Your task to perform on an android device: Clear the shopping cart on amazon. Search for jbl flip 4 on amazon, select the first entry, and add it to the cart. Image 0: 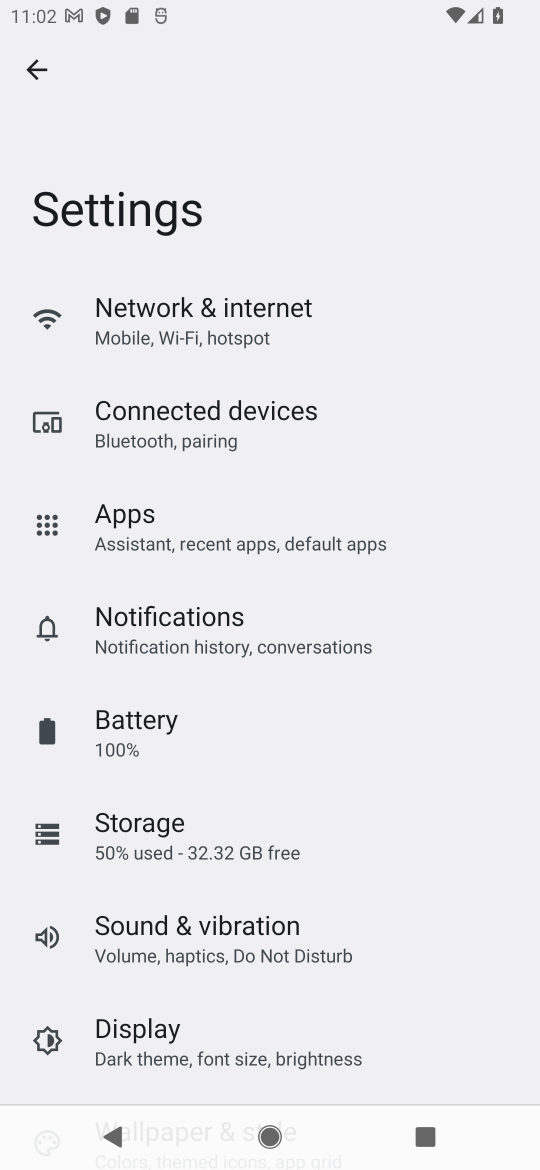
Step 0: press home button
Your task to perform on an android device: Clear the shopping cart on amazon. Search for jbl flip 4 on amazon, select the first entry, and add it to the cart. Image 1: 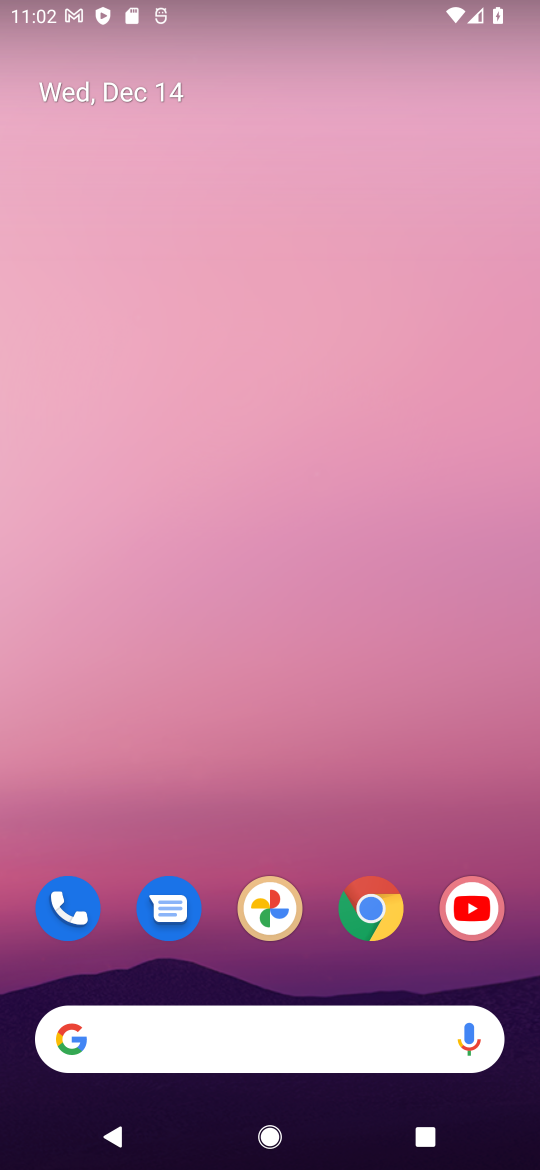
Step 1: click (369, 915)
Your task to perform on an android device: Clear the shopping cart on amazon. Search for jbl flip 4 on amazon, select the first entry, and add it to the cart. Image 2: 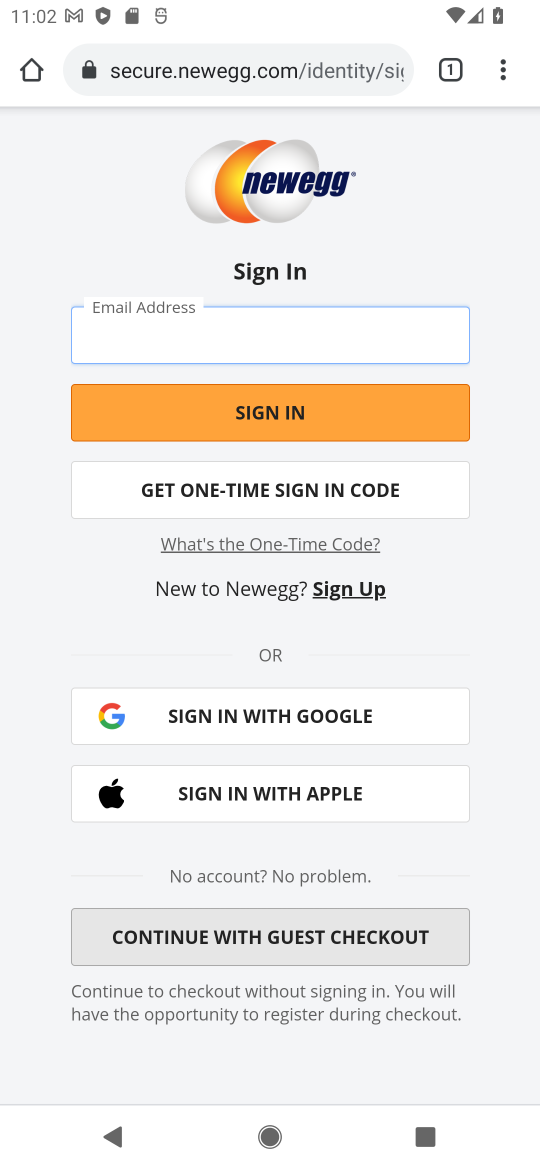
Step 2: click (187, 68)
Your task to perform on an android device: Clear the shopping cart on amazon. Search for jbl flip 4 on amazon, select the first entry, and add it to the cart. Image 3: 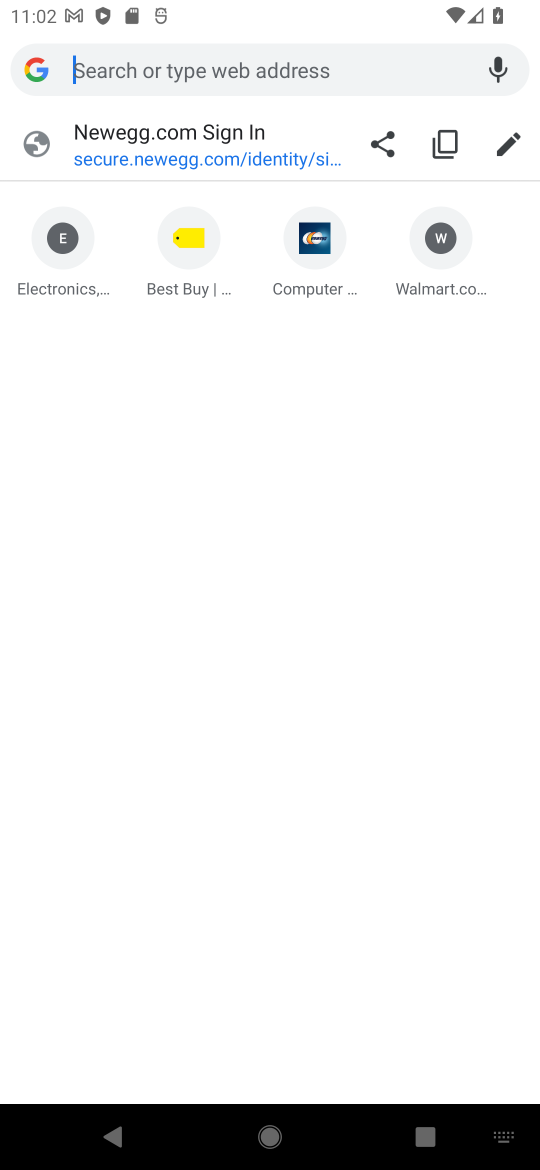
Step 3: type "amazon.com"
Your task to perform on an android device: Clear the shopping cart on amazon. Search for jbl flip 4 on amazon, select the first entry, and add it to the cart. Image 4: 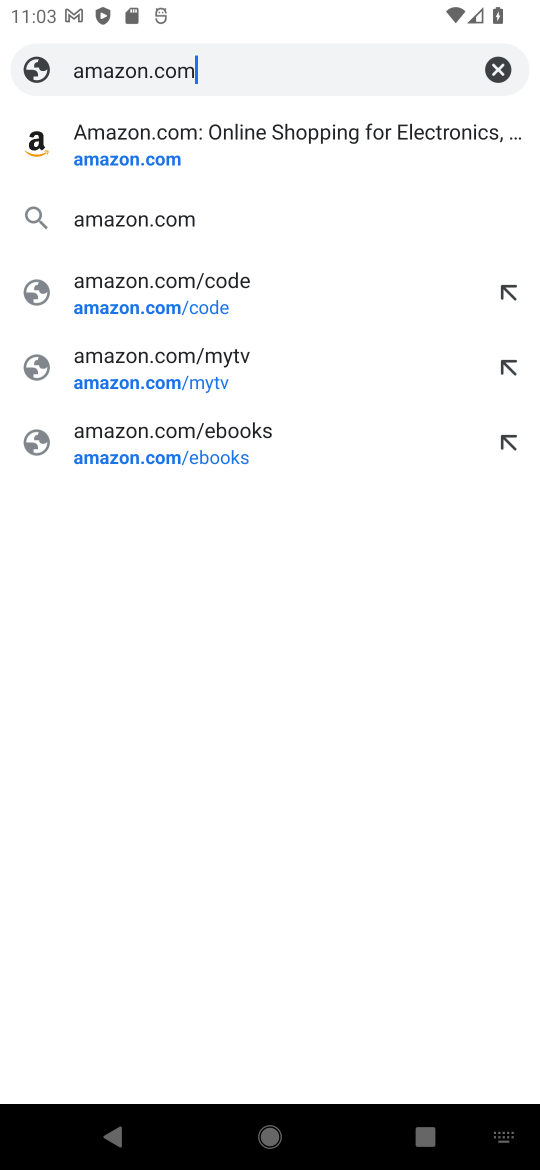
Step 4: click (115, 168)
Your task to perform on an android device: Clear the shopping cart on amazon. Search for jbl flip 4 on amazon, select the first entry, and add it to the cart. Image 5: 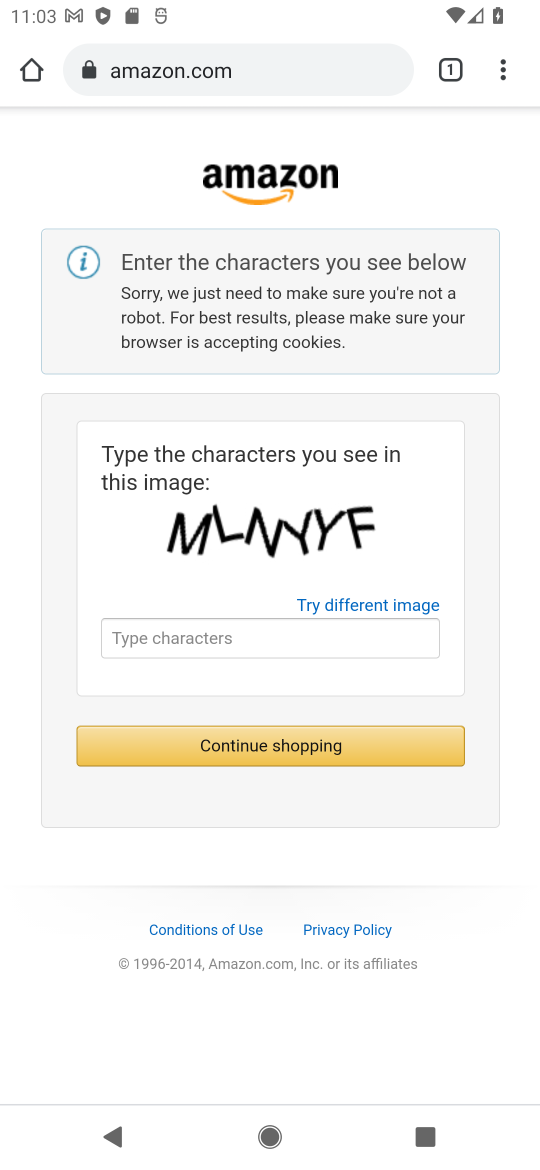
Step 5: click (126, 640)
Your task to perform on an android device: Clear the shopping cart on amazon. Search for jbl flip 4 on amazon, select the first entry, and add it to the cart. Image 6: 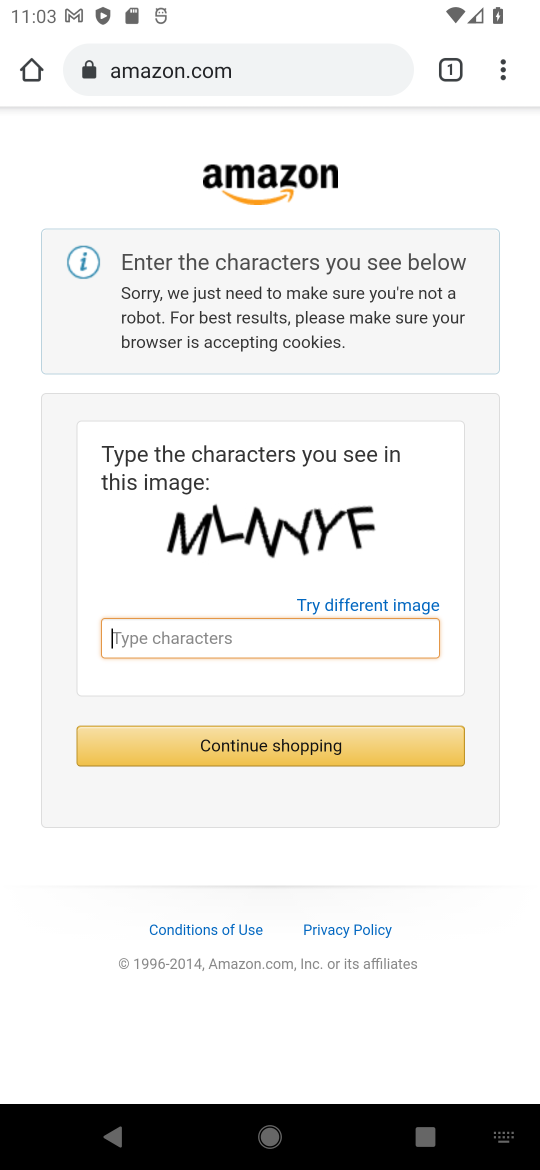
Step 6: type "MLNYYF"
Your task to perform on an android device: Clear the shopping cart on amazon. Search for jbl flip 4 on amazon, select the first entry, and add it to the cart. Image 7: 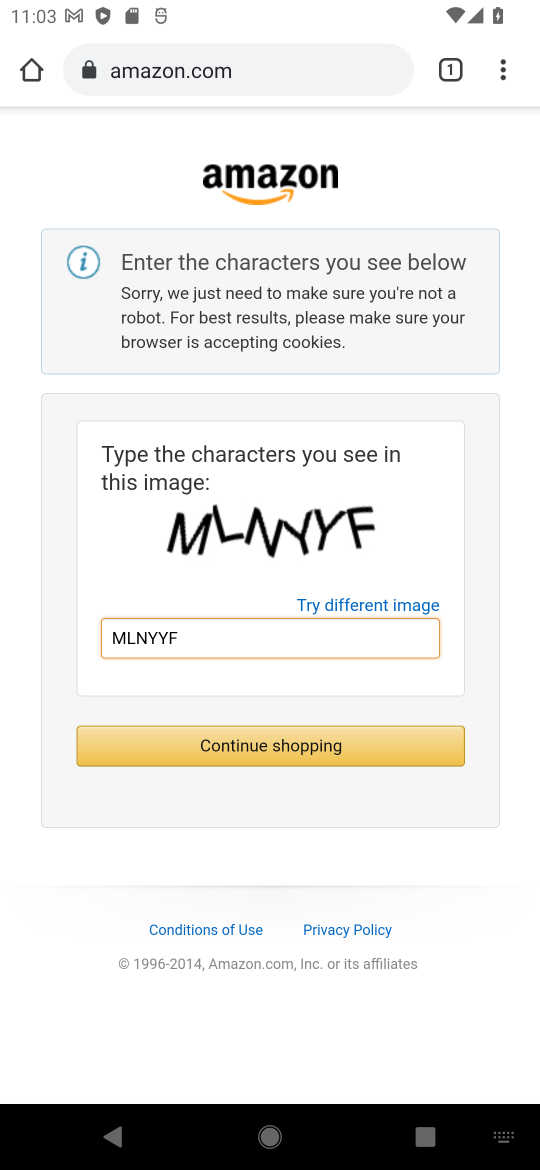
Step 7: click (288, 745)
Your task to perform on an android device: Clear the shopping cart on amazon. Search for jbl flip 4 on amazon, select the first entry, and add it to the cart. Image 8: 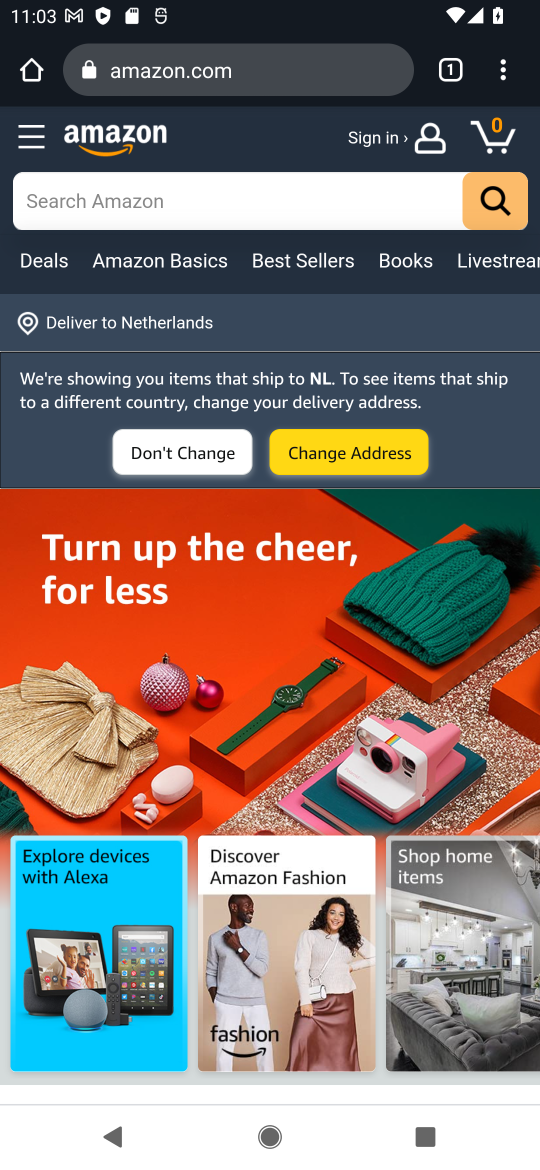
Step 8: click (494, 130)
Your task to perform on an android device: Clear the shopping cart on amazon. Search for jbl flip 4 on amazon, select the first entry, and add it to the cart. Image 9: 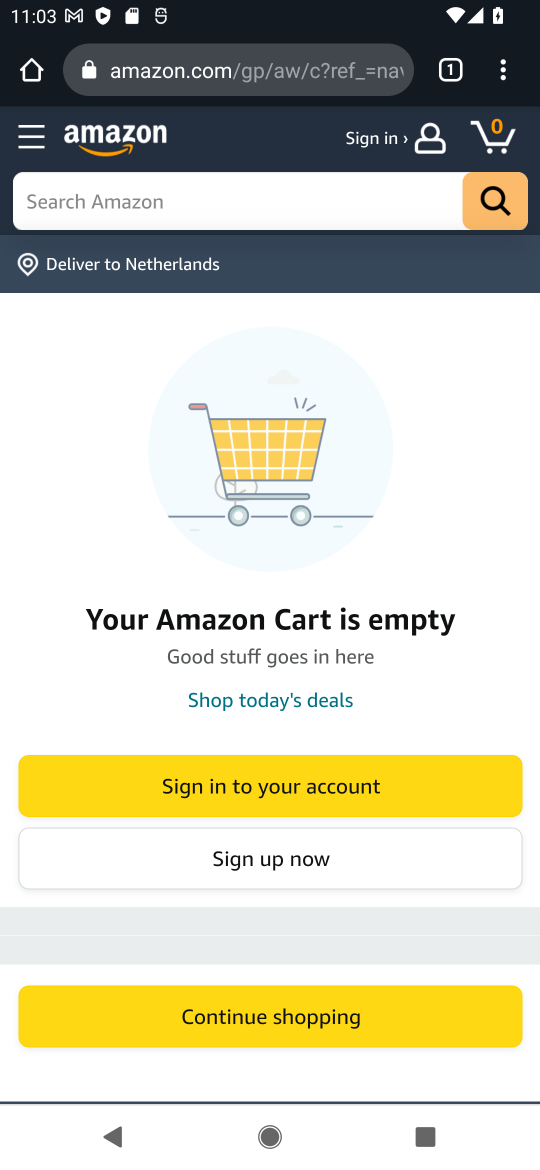
Step 9: click (81, 198)
Your task to perform on an android device: Clear the shopping cart on amazon. Search for jbl flip 4 on amazon, select the first entry, and add it to the cart. Image 10: 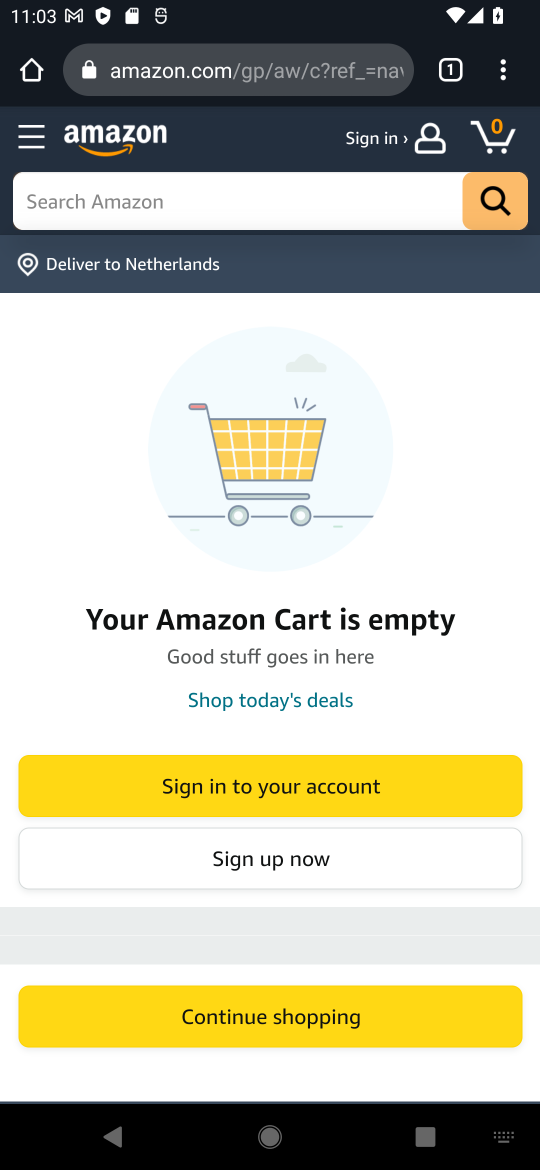
Step 10: type " jbl flip 4"
Your task to perform on an android device: Clear the shopping cart on amazon. Search for jbl flip 4 on amazon, select the first entry, and add it to the cart. Image 11: 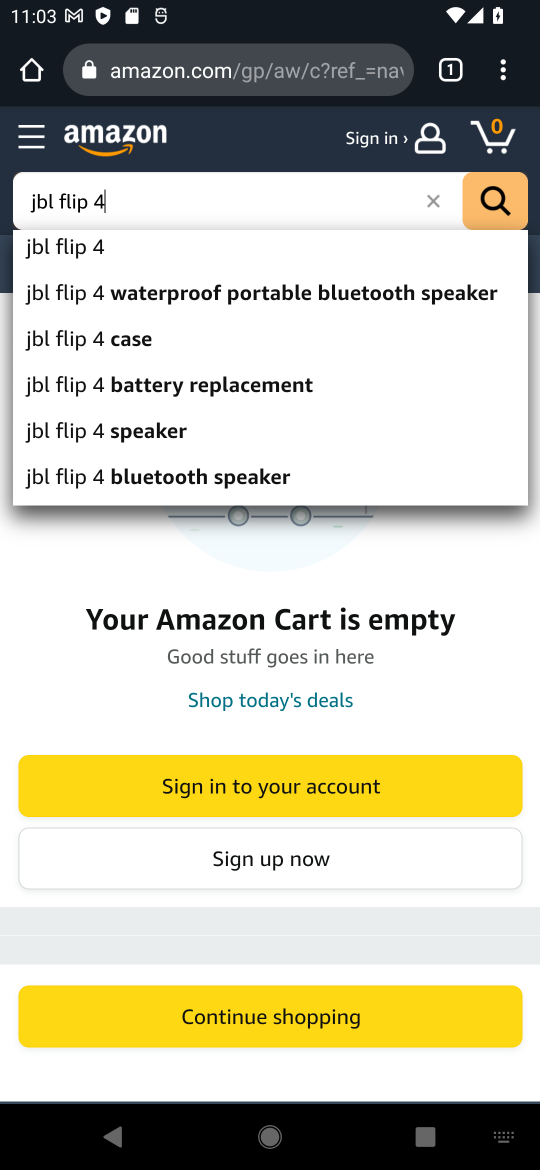
Step 11: click (63, 248)
Your task to perform on an android device: Clear the shopping cart on amazon. Search for jbl flip 4 on amazon, select the first entry, and add it to the cart. Image 12: 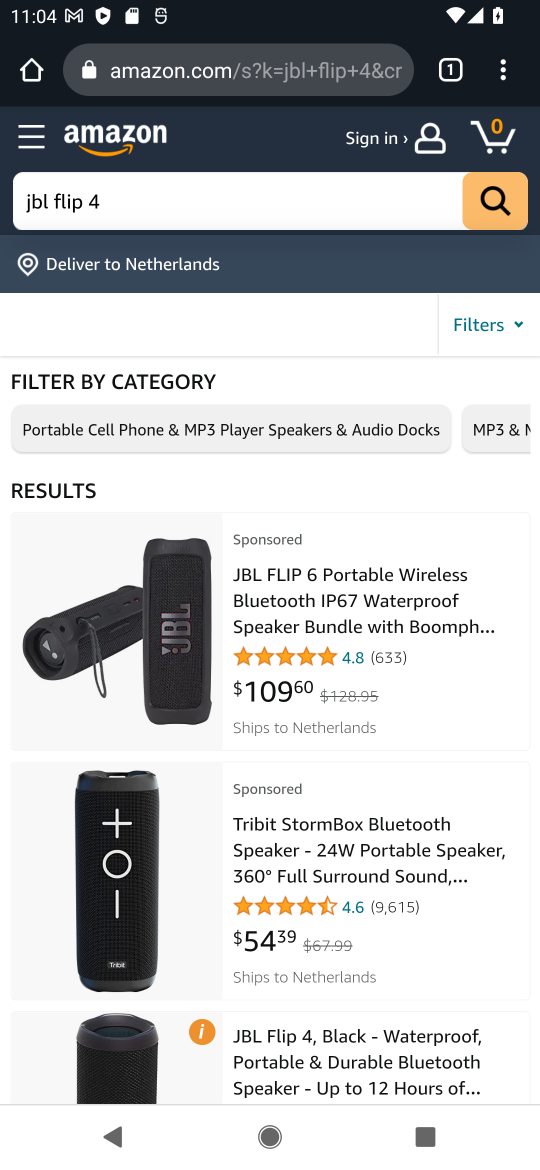
Step 12: task complete